Your task to perform on an android device: change the clock style Image 0: 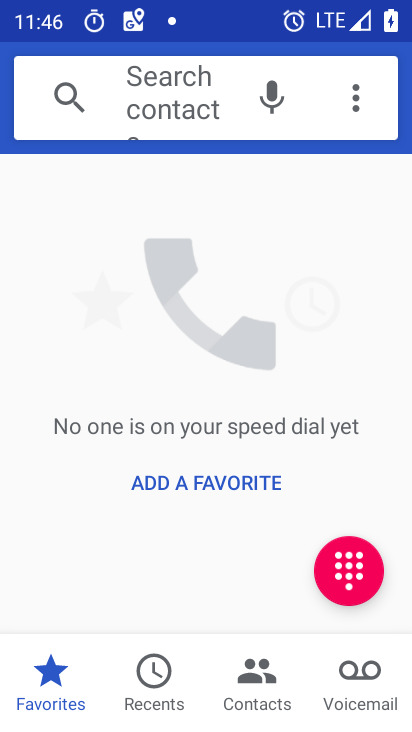
Step 0: press home button
Your task to perform on an android device: change the clock style Image 1: 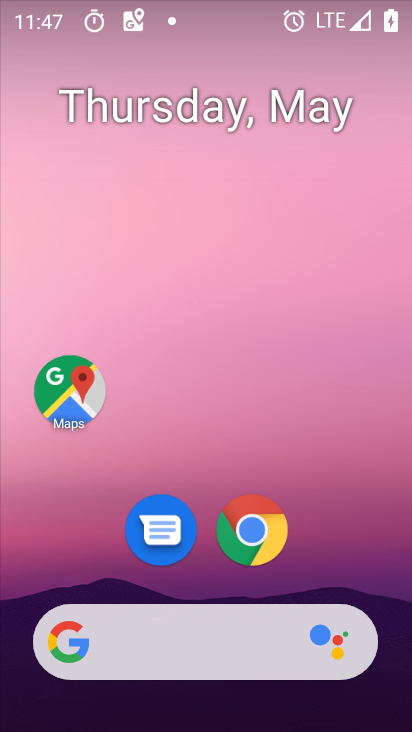
Step 1: drag from (320, 557) to (290, 34)
Your task to perform on an android device: change the clock style Image 2: 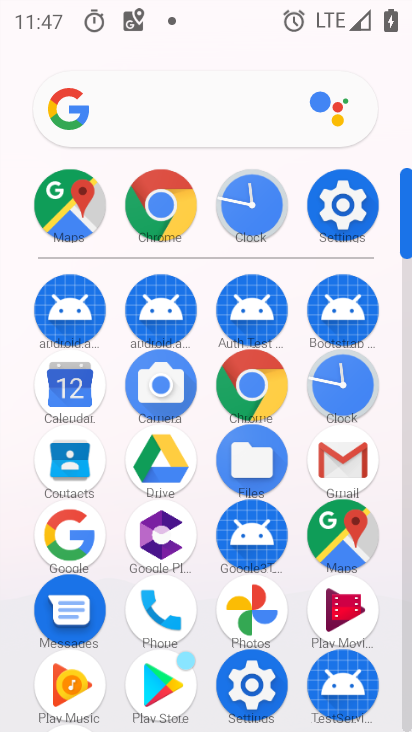
Step 2: click (348, 412)
Your task to perform on an android device: change the clock style Image 3: 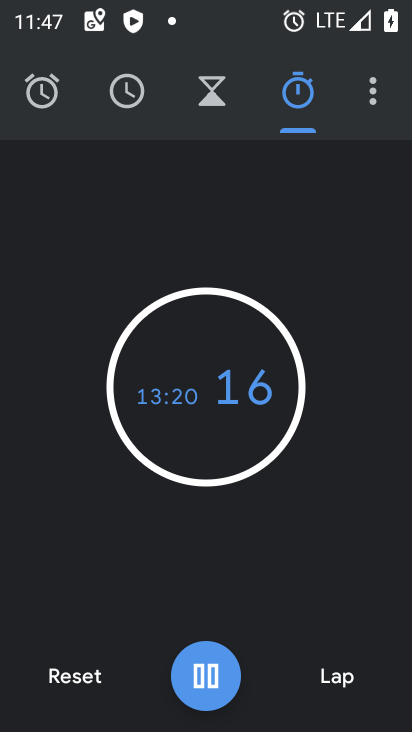
Step 3: click (361, 100)
Your task to perform on an android device: change the clock style Image 4: 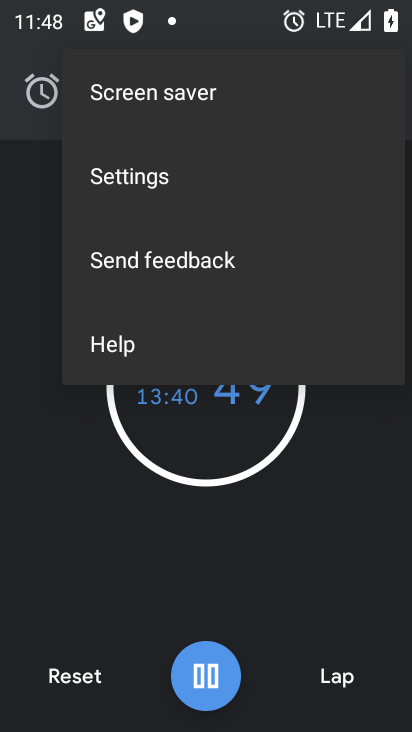
Step 4: click (227, 180)
Your task to perform on an android device: change the clock style Image 5: 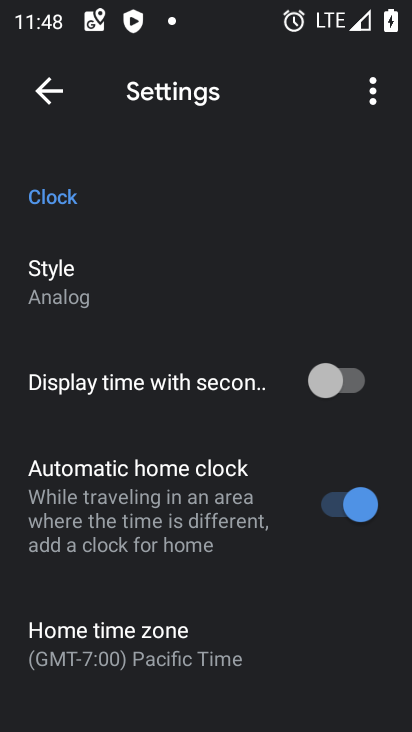
Step 5: click (71, 299)
Your task to perform on an android device: change the clock style Image 6: 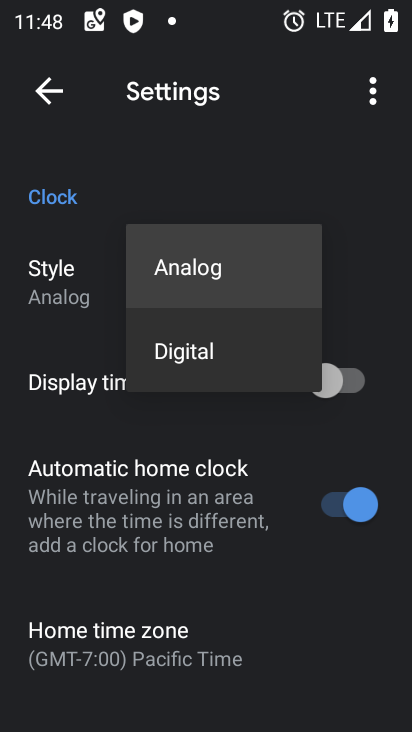
Step 6: click (210, 343)
Your task to perform on an android device: change the clock style Image 7: 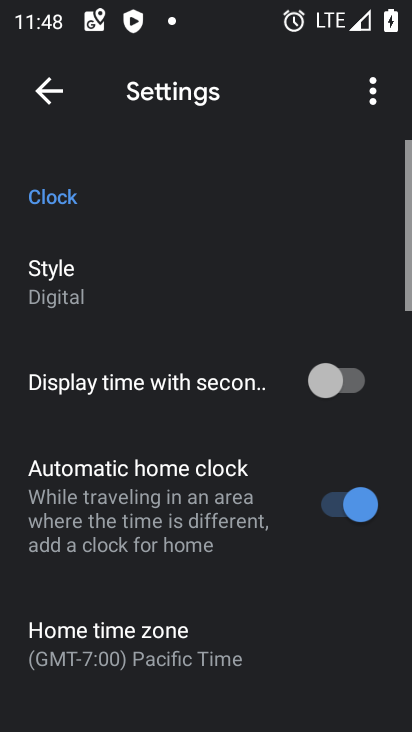
Step 7: task complete